Your task to perform on an android device: change notifications settings Image 0: 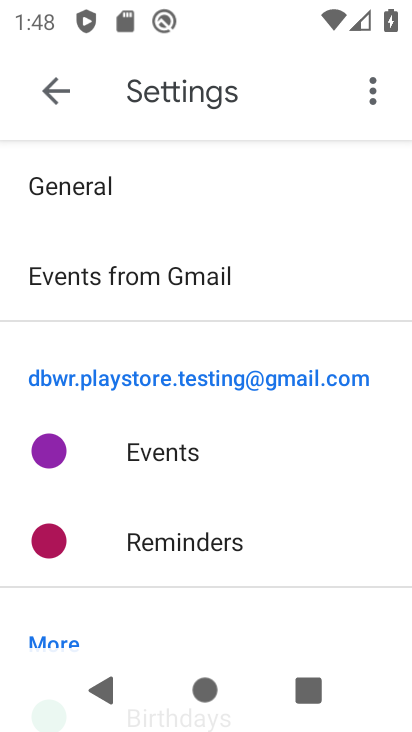
Step 0: press home button
Your task to perform on an android device: change notifications settings Image 1: 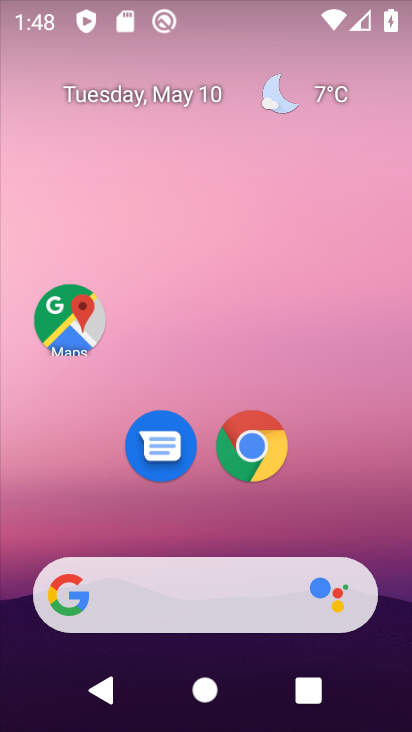
Step 1: drag from (336, 517) to (348, 117)
Your task to perform on an android device: change notifications settings Image 2: 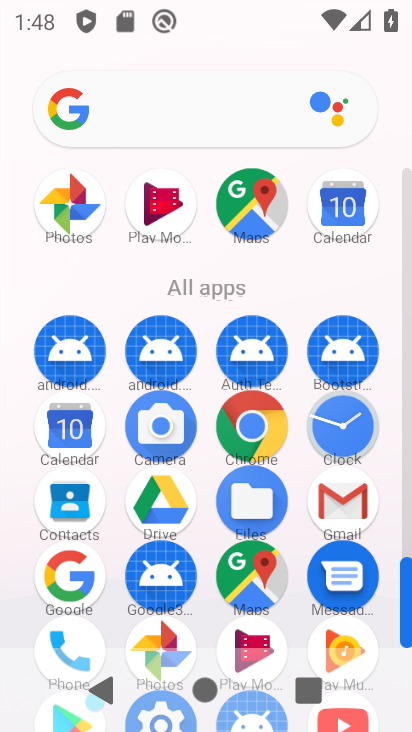
Step 2: drag from (294, 663) to (358, 240)
Your task to perform on an android device: change notifications settings Image 3: 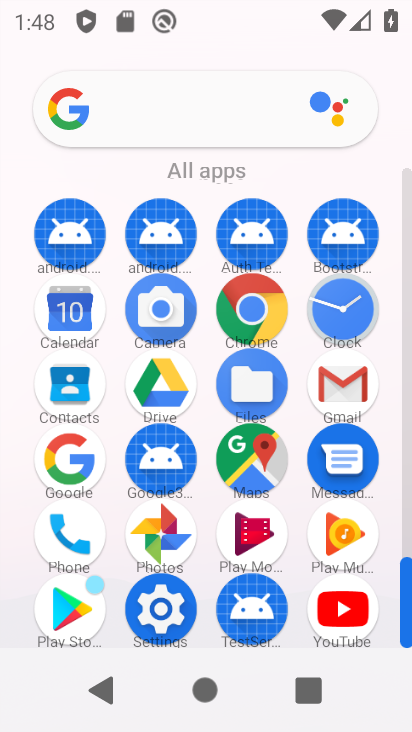
Step 3: click (181, 597)
Your task to perform on an android device: change notifications settings Image 4: 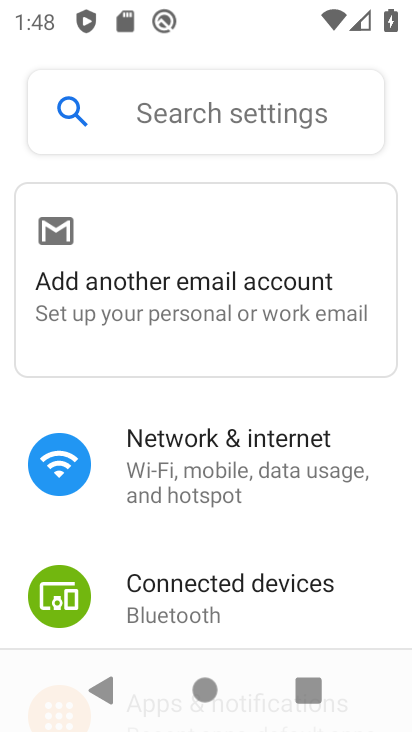
Step 4: drag from (310, 480) to (318, 293)
Your task to perform on an android device: change notifications settings Image 5: 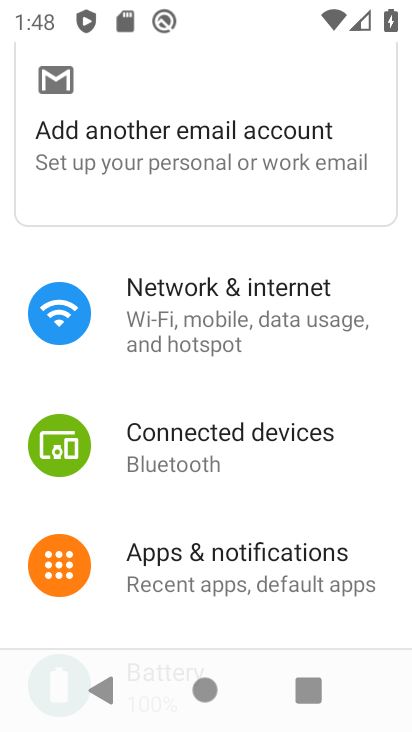
Step 5: click (302, 568)
Your task to perform on an android device: change notifications settings Image 6: 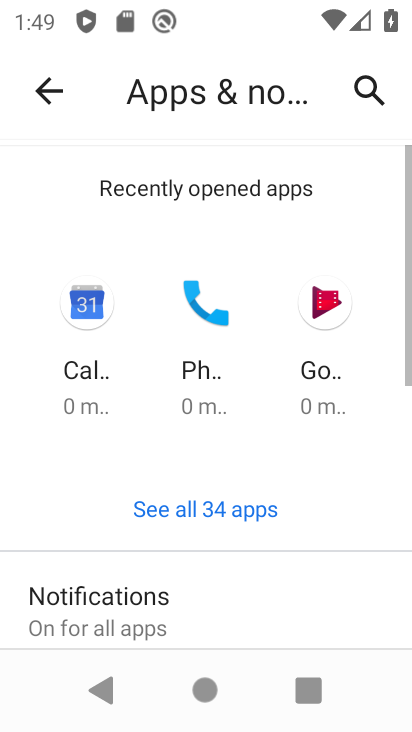
Step 6: drag from (302, 568) to (337, 305)
Your task to perform on an android device: change notifications settings Image 7: 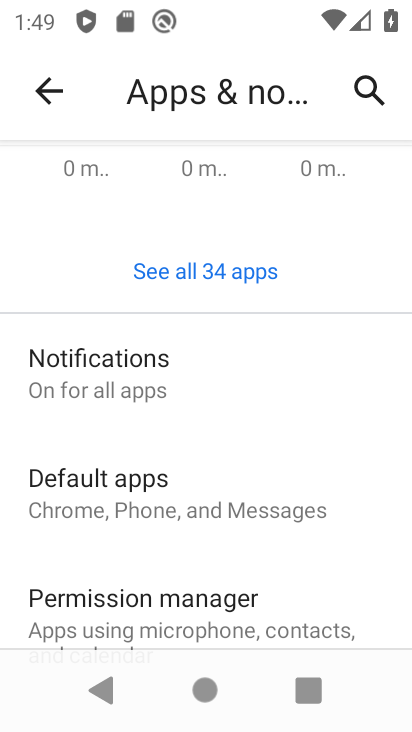
Step 7: click (190, 395)
Your task to perform on an android device: change notifications settings Image 8: 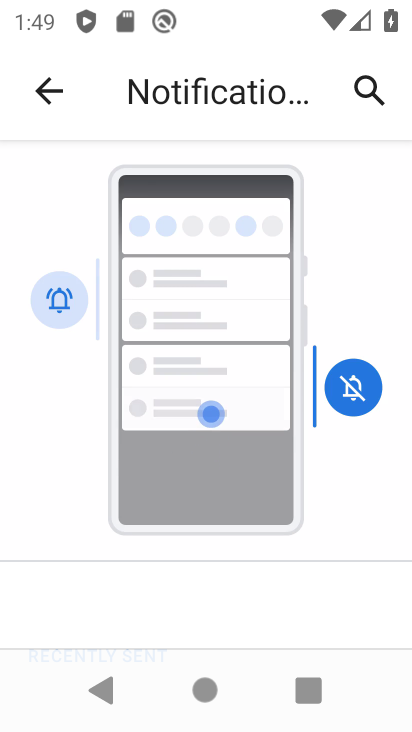
Step 8: drag from (344, 536) to (344, 151)
Your task to perform on an android device: change notifications settings Image 9: 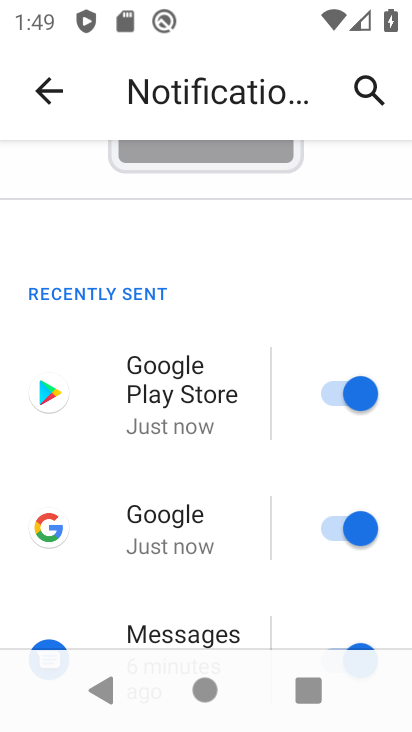
Step 9: click (347, 381)
Your task to perform on an android device: change notifications settings Image 10: 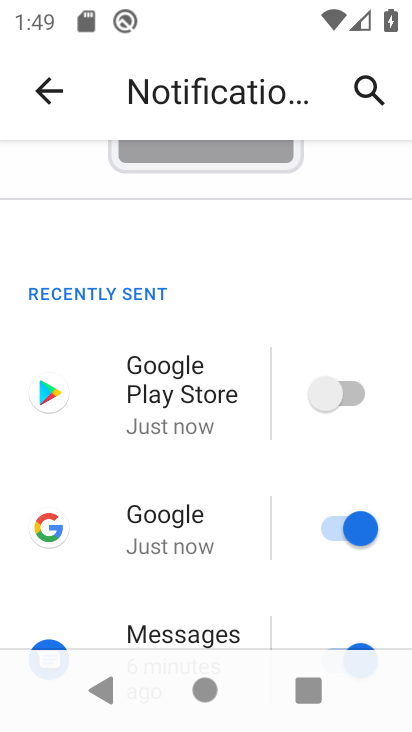
Step 10: task complete